Your task to perform on an android device: Open wifi settings Image 0: 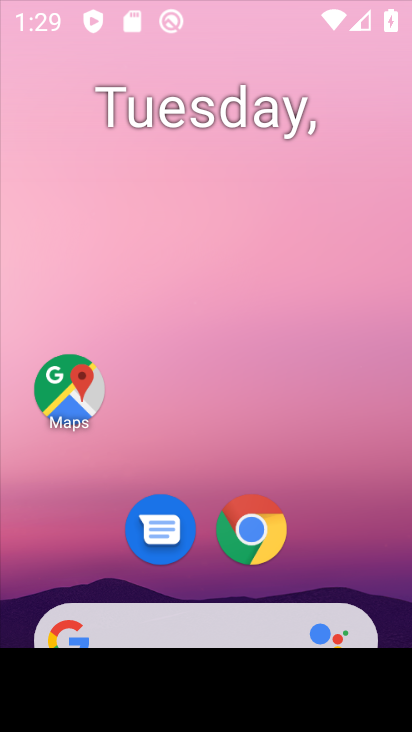
Step 0: drag from (363, 432) to (285, 62)
Your task to perform on an android device: Open wifi settings Image 1: 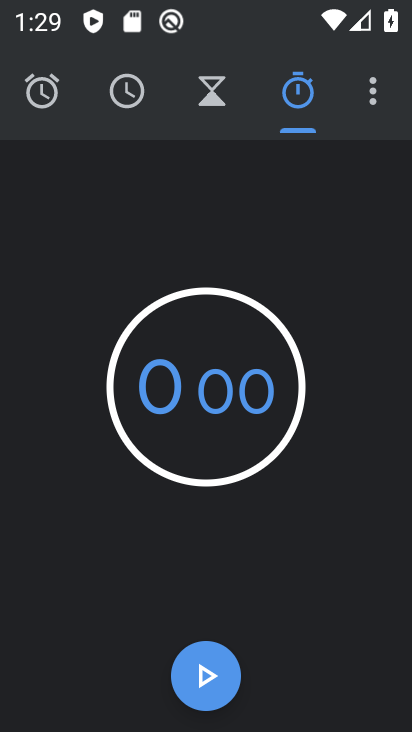
Step 1: press home button
Your task to perform on an android device: Open wifi settings Image 2: 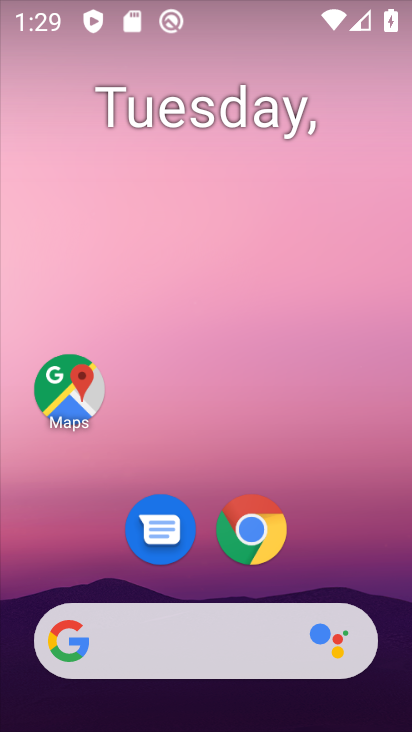
Step 2: drag from (395, 624) to (272, 68)
Your task to perform on an android device: Open wifi settings Image 3: 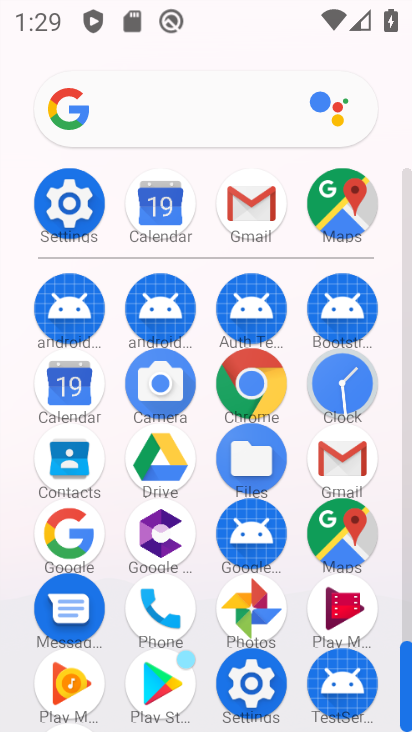
Step 3: click (235, 675)
Your task to perform on an android device: Open wifi settings Image 4: 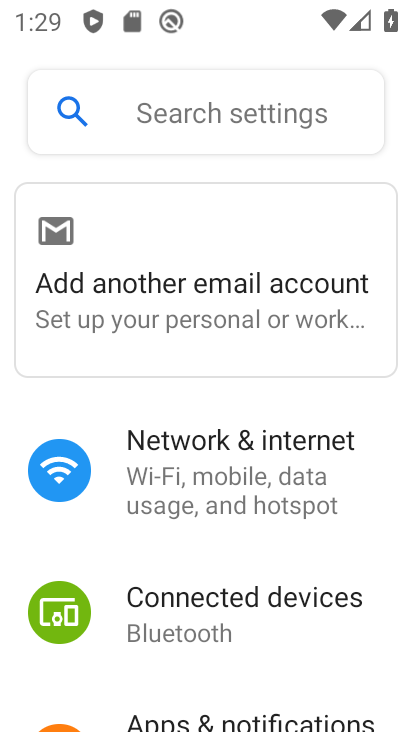
Step 4: click (217, 472)
Your task to perform on an android device: Open wifi settings Image 5: 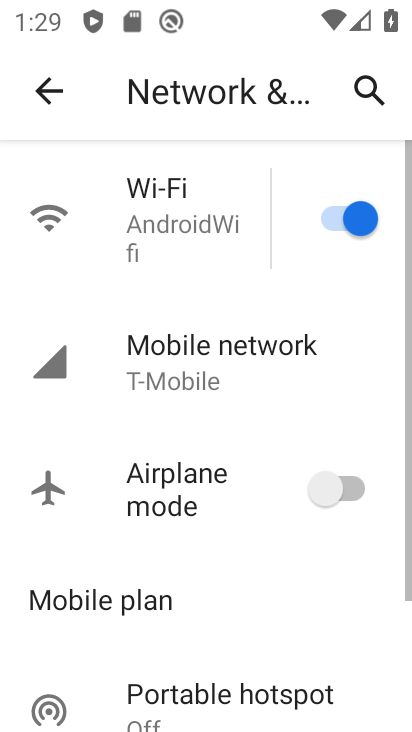
Step 5: click (150, 190)
Your task to perform on an android device: Open wifi settings Image 6: 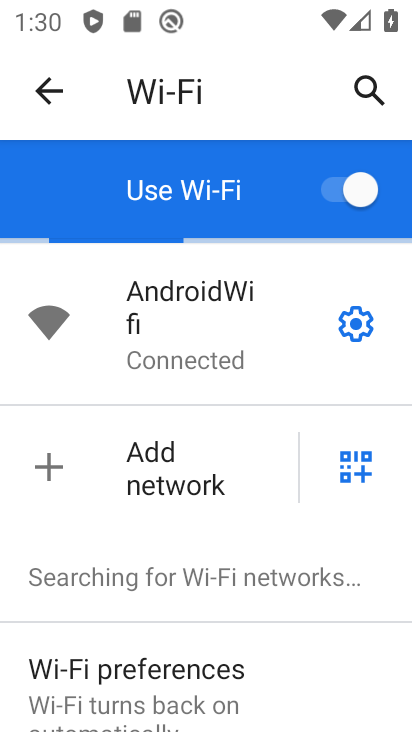
Step 6: task complete